Your task to perform on an android device: Go to location settings Image 0: 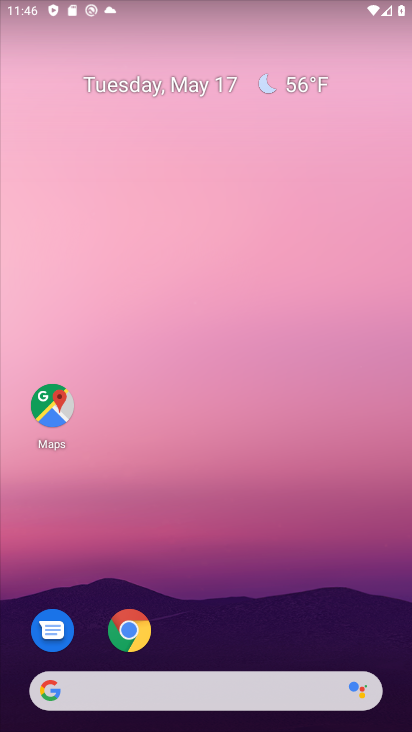
Step 0: drag from (184, 719) to (168, 207)
Your task to perform on an android device: Go to location settings Image 1: 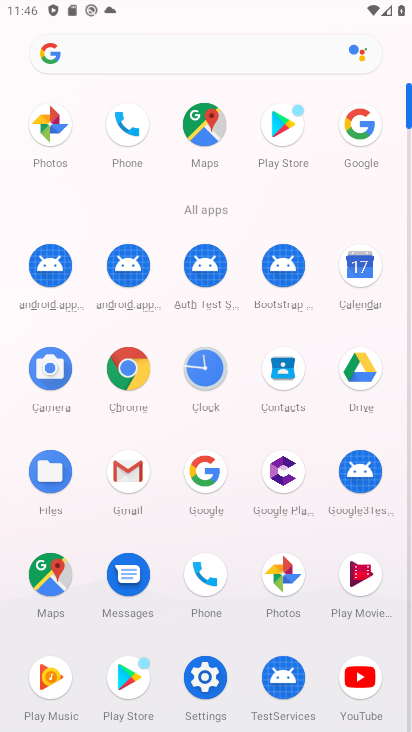
Step 1: click (208, 673)
Your task to perform on an android device: Go to location settings Image 2: 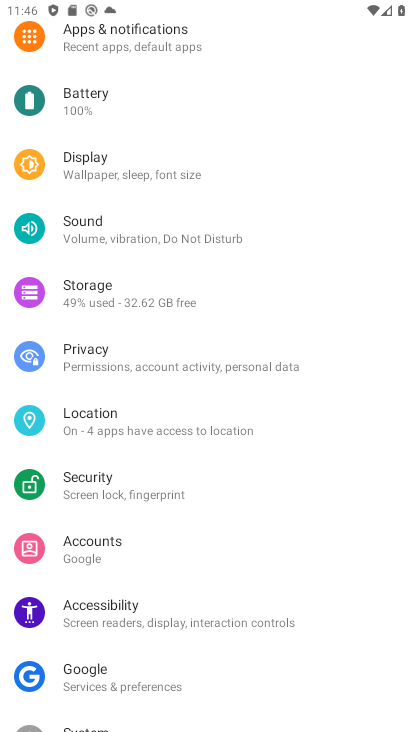
Step 2: click (99, 427)
Your task to perform on an android device: Go to location settings Image 3: 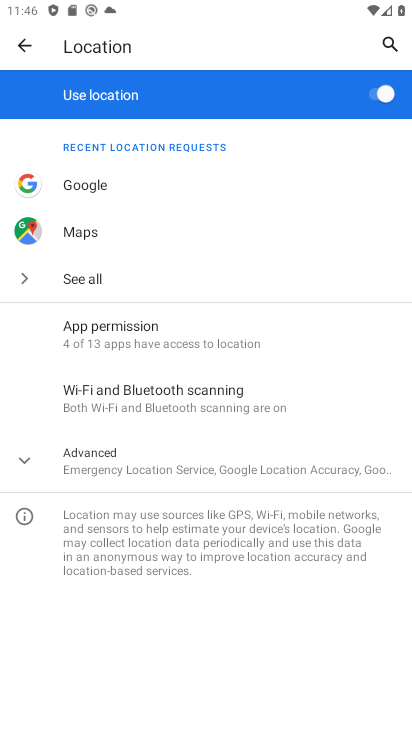
Step 3: task complete